Your task to perform on an android device: make emails show in primary in the gmail app Image 0: 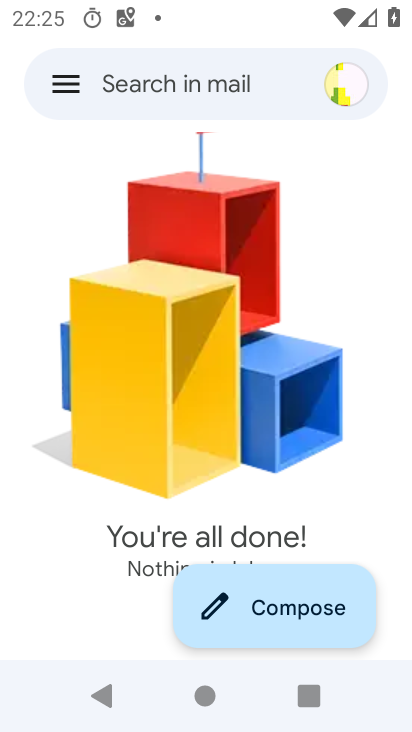
Step 0: press home button
Your task to perform on an android device: make emails show in primary in the gmail app Image 1: 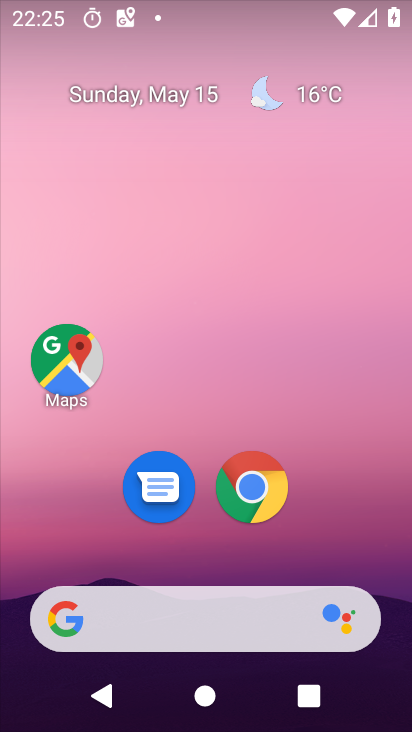
Step 1: drag from (402, 659) to (345, 184)
Your task to perform on an android device: make emails show in primary in the gmail app Image 2: 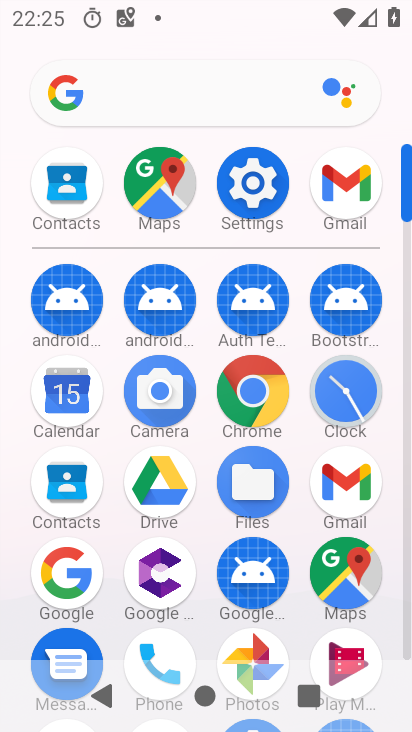
Step 2: click (331, 477)
Your task to perform on an android device: make emails show in primary in the gmail app Image 3: 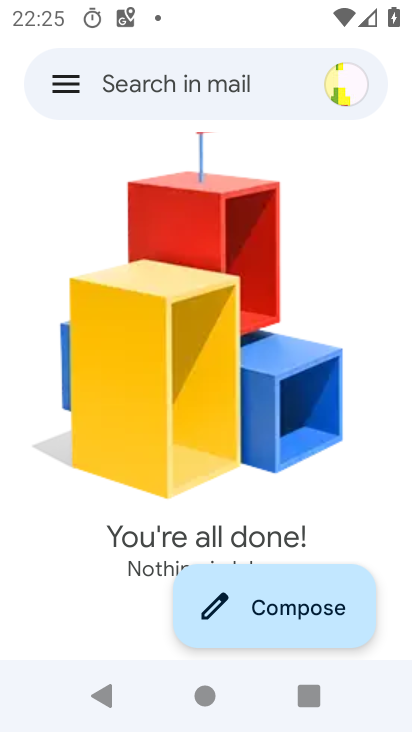
Step 3: click (61, 75)
Your task to perform on an android device: make emails show in primary in the gmail app Image 4: 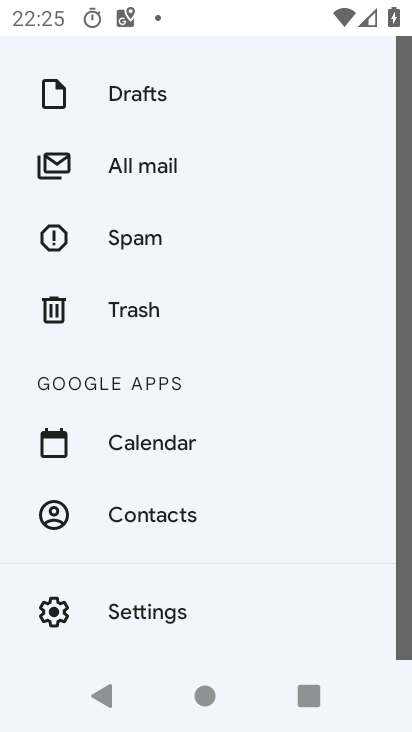
Step 4: click (83, 609)
Your task to perform on an android device: make emails show in primary in the gmail app Image 5: 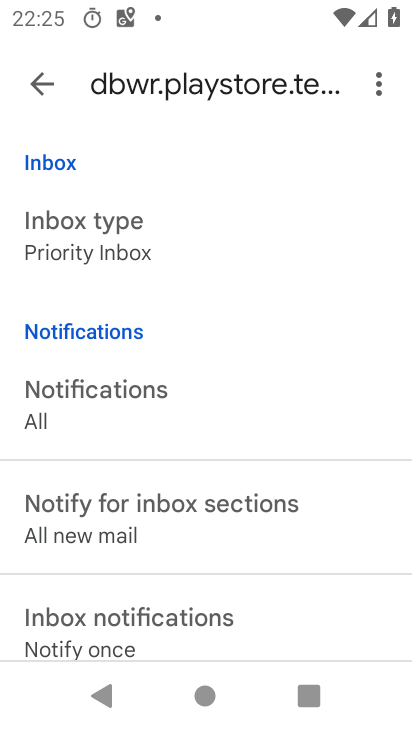
Step 5: click (77, 237)
Your task to perform on an android device: make emails show in primary in the gmail app Image 6: 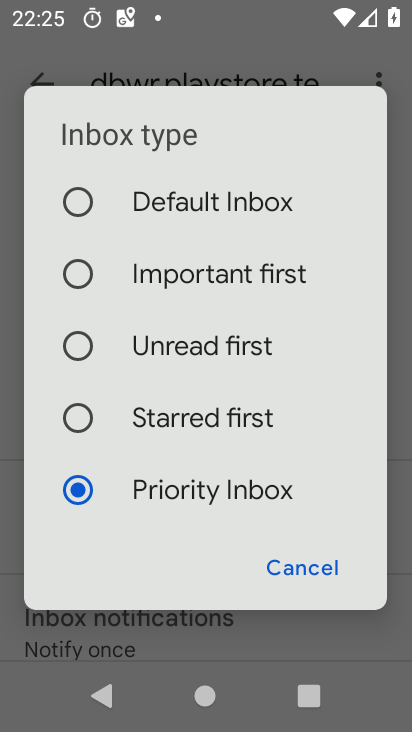
Step 6: click (82, 191)
Your task to perform on an android device: make emails show in primary in the gmail app Image 7: 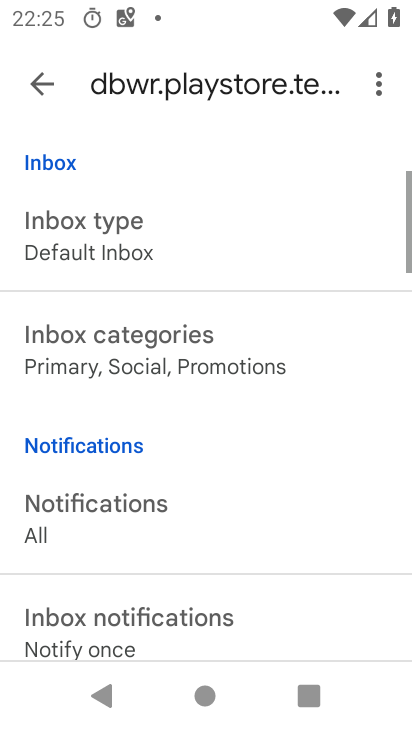
Step 7: click (83, 347)
Your task to perform on an android device: make emails show in primary in the gmail app Image 8: 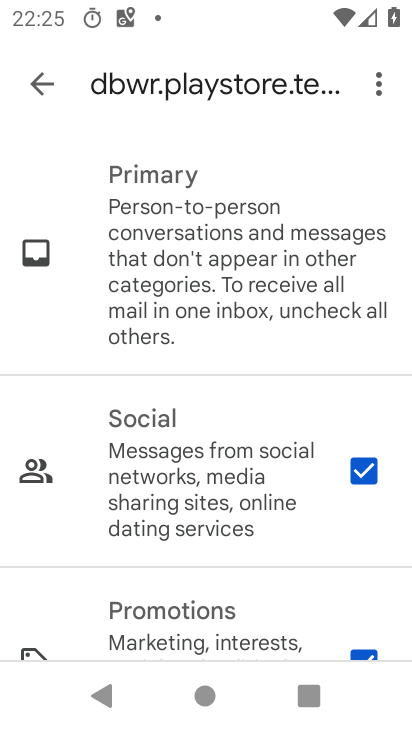
Step 8: click (363, 472)
Your task to perform on an android device: make emails show in primary in the gmail app Image 9: 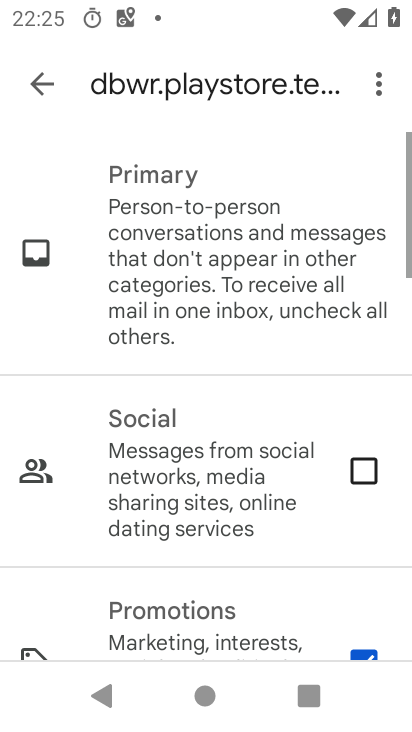
Step 9: drag from (317, 580) to (286, 350)
Your task to perform on an android device: make emails show in primary in the gmail app Image 10: 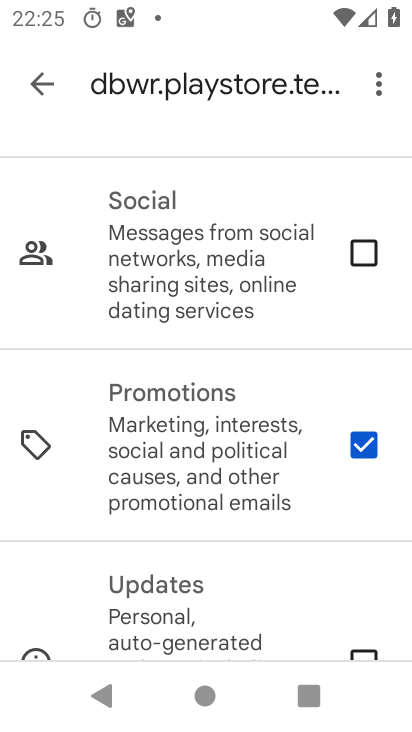
Step 10: click (361, 434)
Your task to perform on an android device: make emails show in primary in the gmail app Image 11: 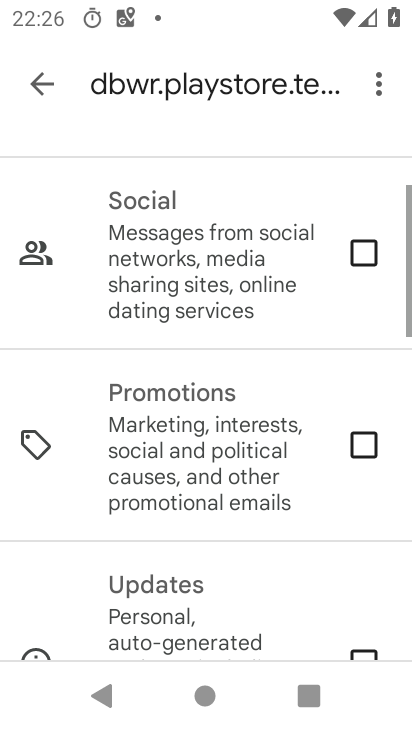
Step 11: click (24, 80)
Your task to perform on an android device: make emails show in primary in the gmail app Image 12: 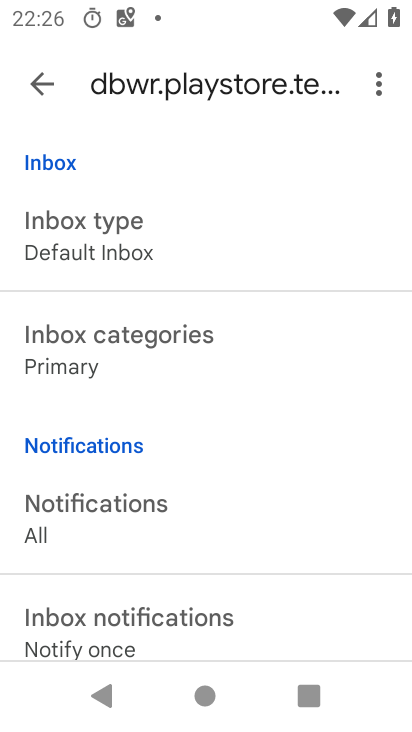
Step 12: task complete